Your task to perform on an android device: open a bookmark in the chrome app Image 0: 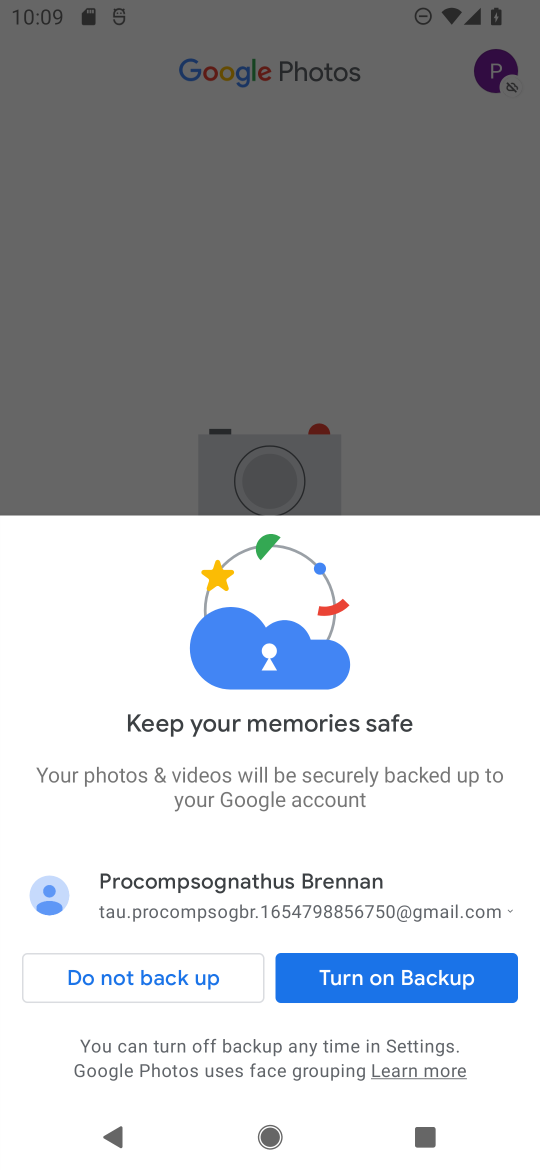
Step 0: press home button
Your task to perform on an android device: open a bookmark in the chrome app Image 1: 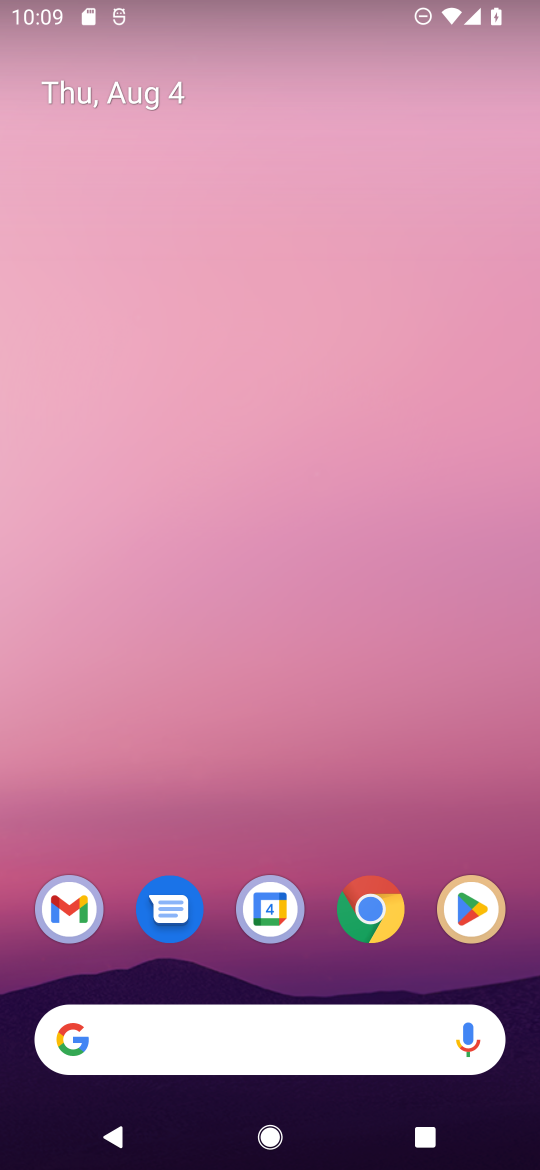
Step 1: click (375, 916)
Your task to perform on an android device: open a bookmark in the chrome app Image 2: 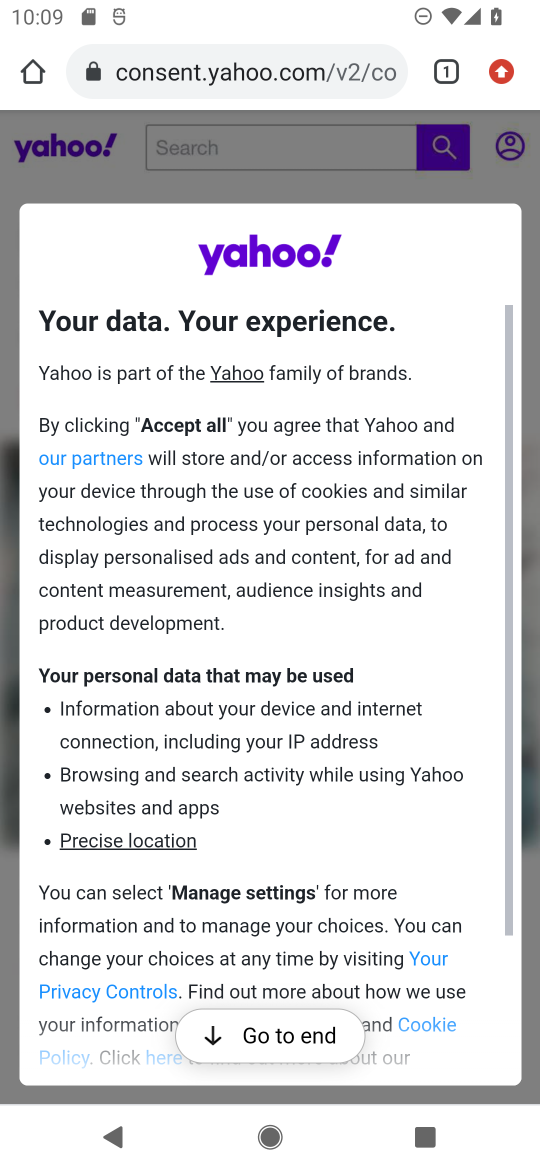
Step 2: click (507, 74)
Your task to perform on an android device: open a bookmark in the chrome app Image 3: 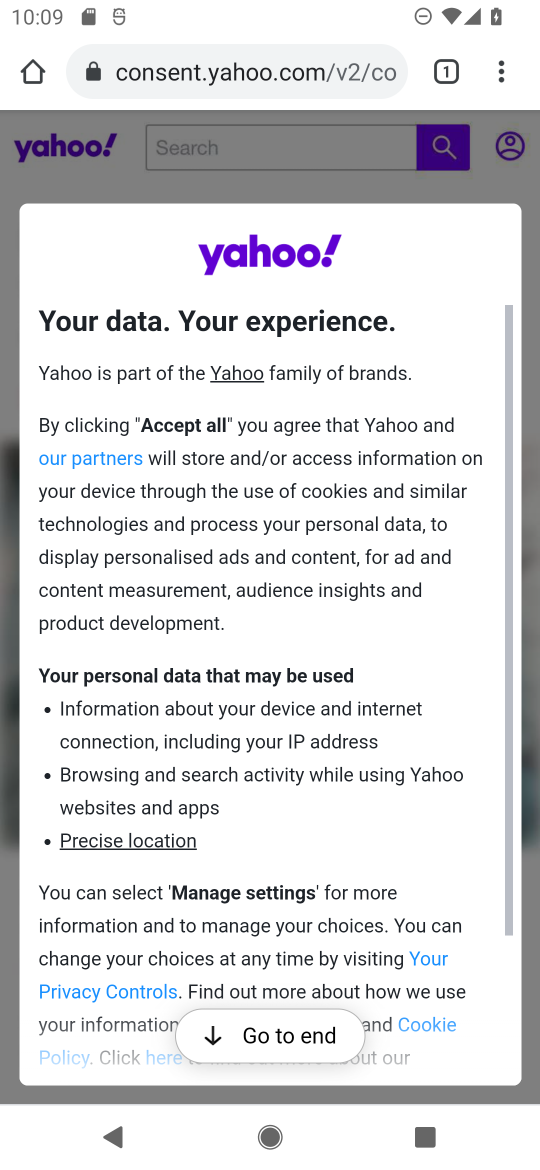
Step 3: click (505, 73)
Your task to perform on an android device: open a bookmark in the chrome app Image 4: 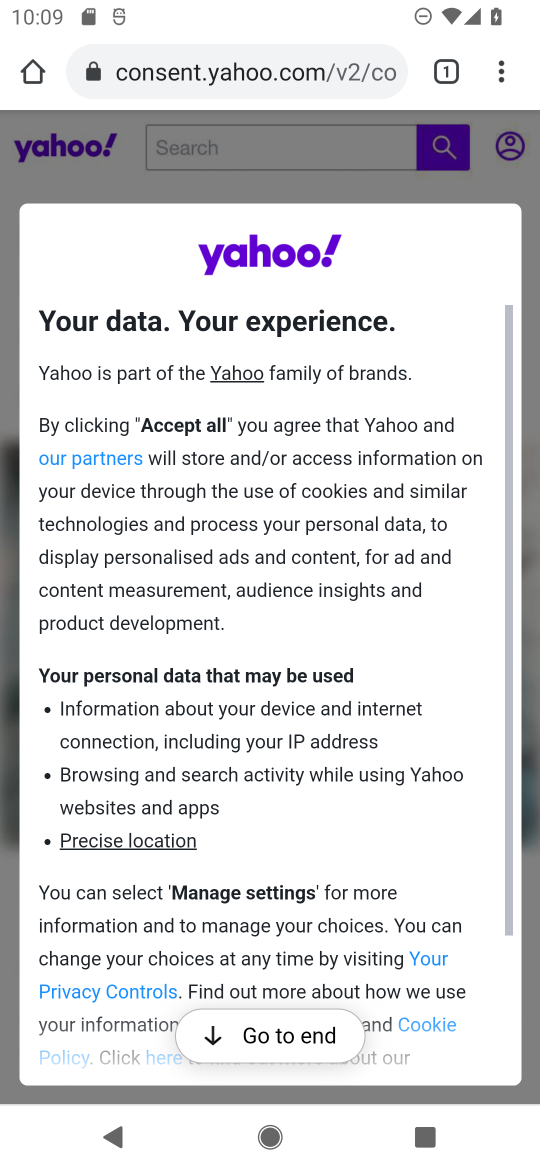
Step 4: drag from (505, 73) to (310, 514)
Your task to perform on an android device: open a bookmark in the chrome app Image 5: 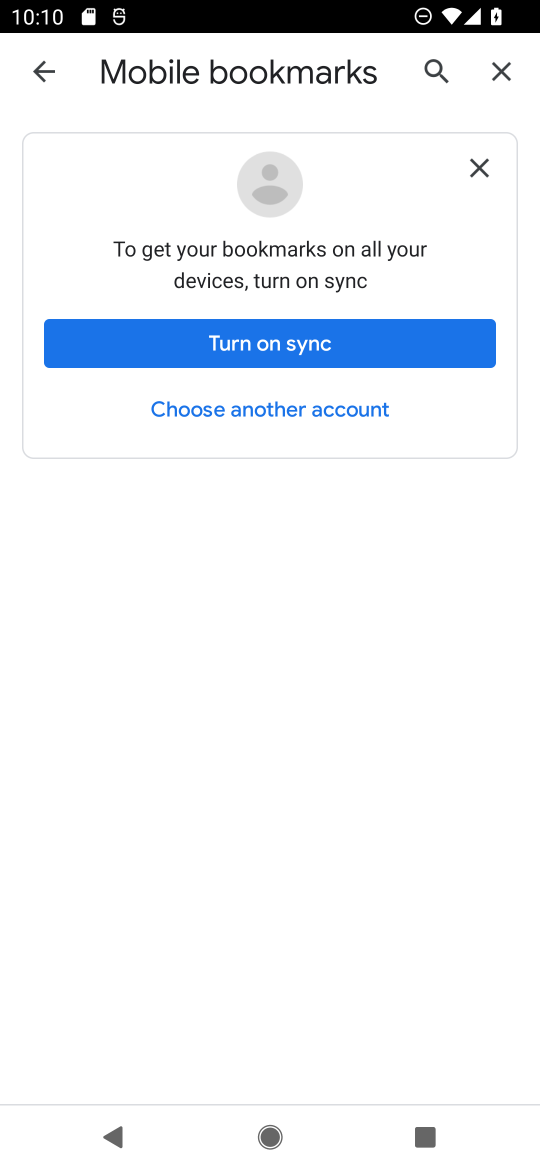
Step 5: click (218, 350)
Your task to perform on an android device: open a bookmark in the chrome app Image 6: 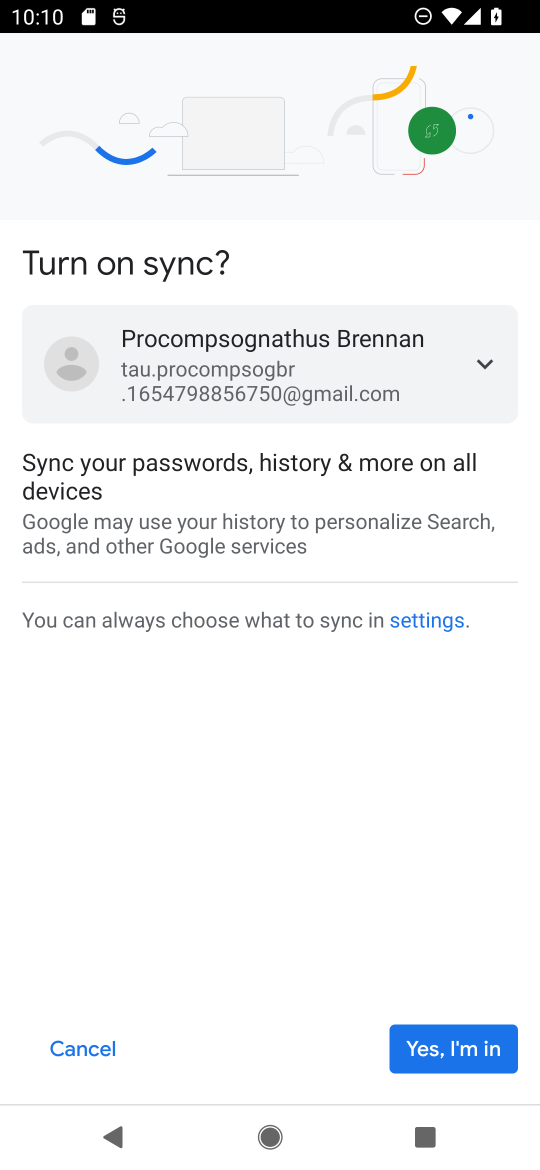
Step 6: click (465, 1059)
Your task to perform on an android device: open a bookmark in the chrome app Image 7: 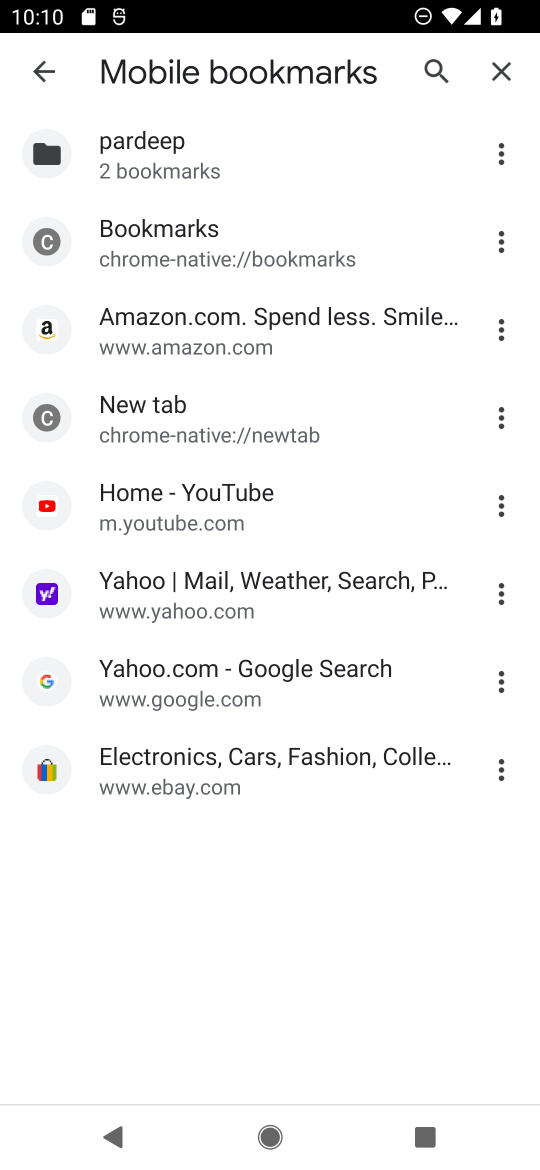
Step 7: click (137, 341)
Your task to perform on an android device: open a bookmark in the chrome app Image 8: 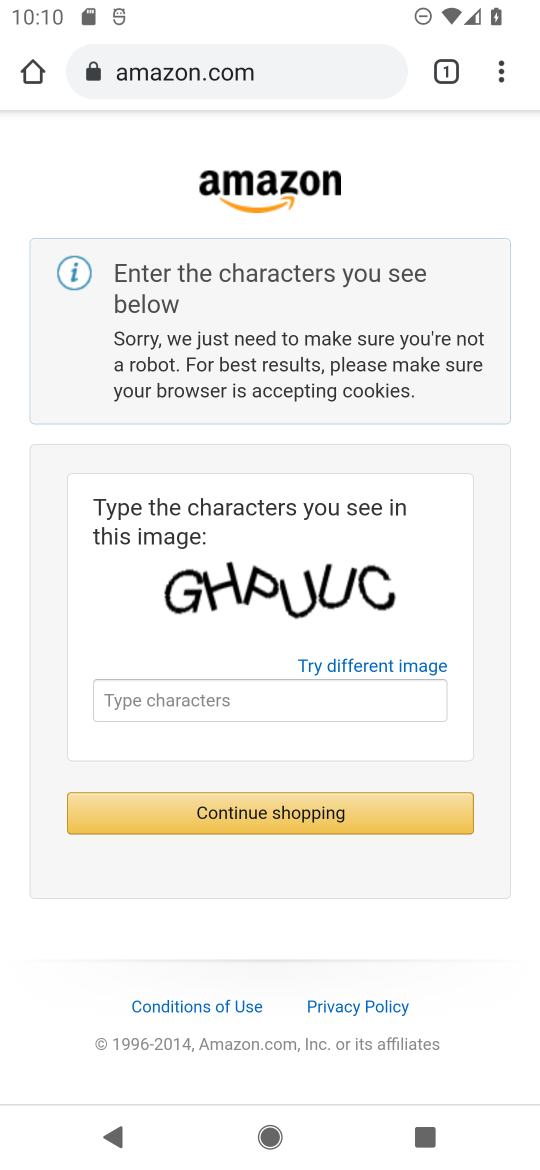
Step 8: task complete